Your task to perform on an android device: Is it going to rain today? Image 0: 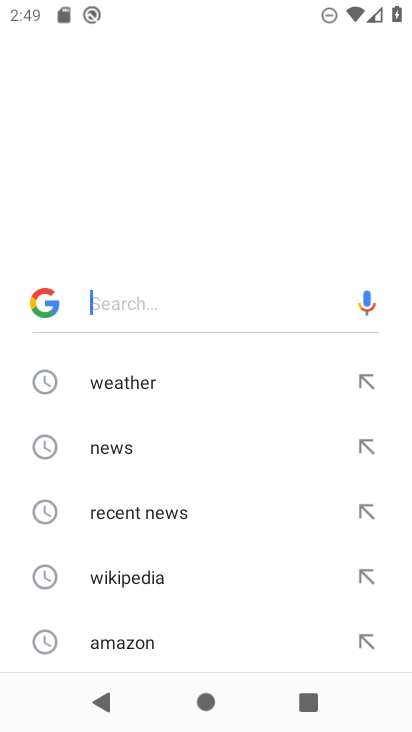
Step 0: drag from (183, 590) to (165, 108)
Your task to perform on an android device: Is it going to rain today? Image 1: 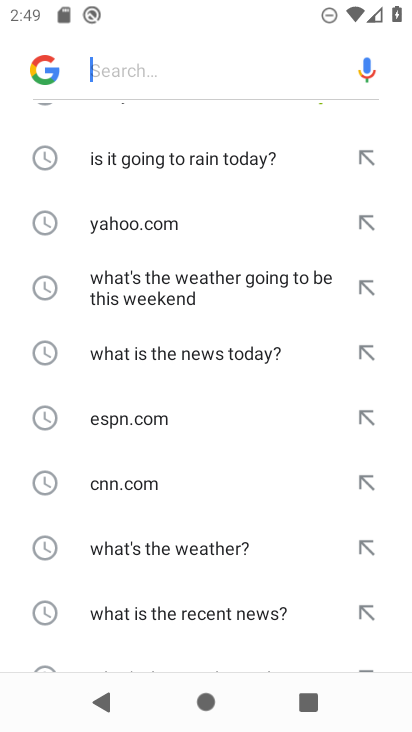
Step 1: press home button
Your task to perform on an android device: Is it going to rain today? Image 2: 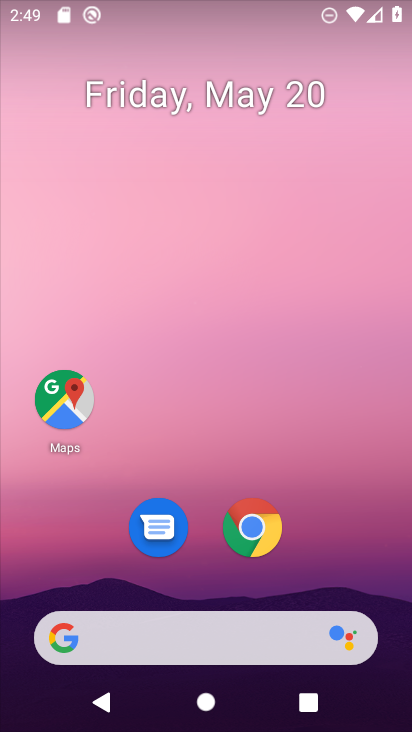
Step 2: drag from (197, 585) to (283, 92)
Your task to perform on an android device: Is it going to rain today? Image 3: 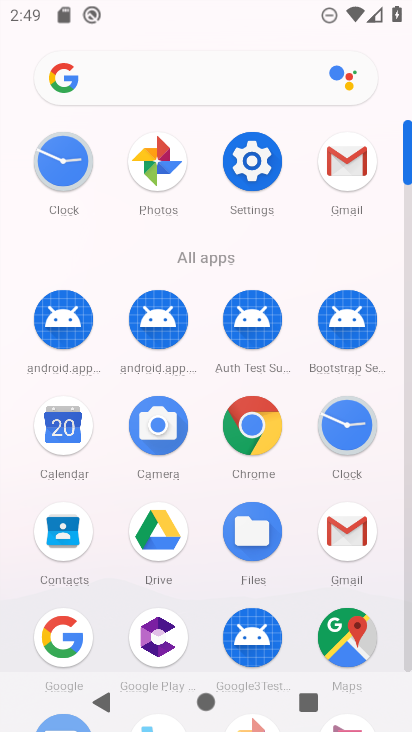
Step 3: click (136, 75)
Your task to perform on an android device: Is it going to rain today? Image 4: 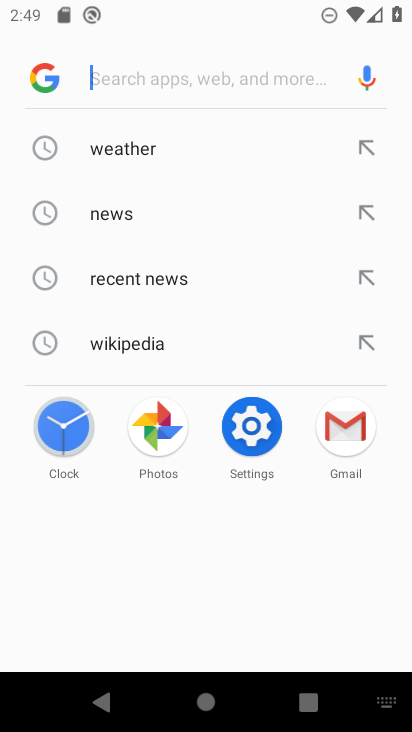
Step 4: click (118, 129)
Your task to perform on an android device: Is it going to rain today? Image 5: 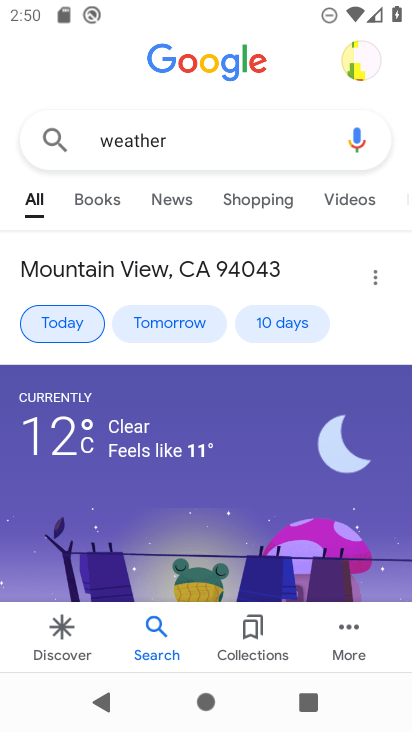
Step 5: task complete